Your task to perform on an android device: Search for "jbl charge 4" on walmart.com, select the first entry, and add it to the cart. Image 0: 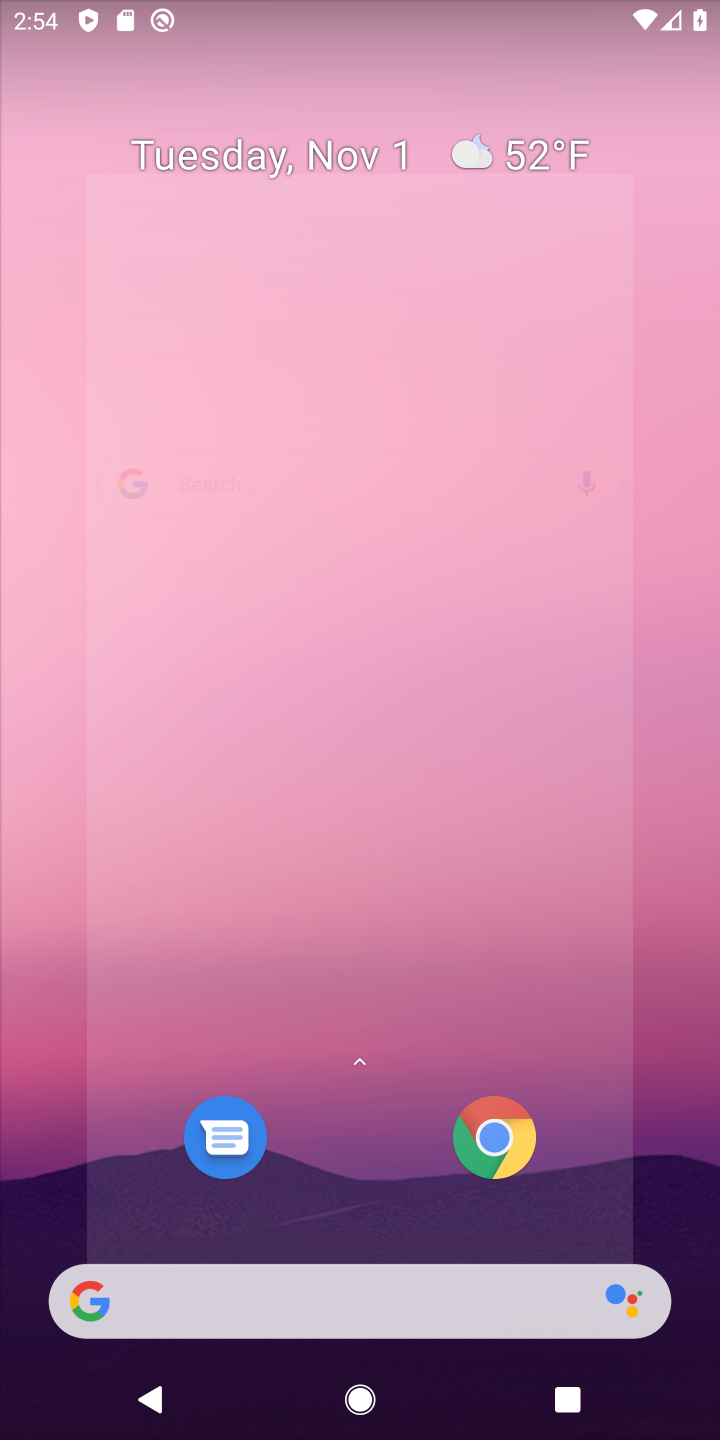
Step 0: click (333, 205)
Your task to perform on an android device: Search for "jbl charge 4" on walmart.com, select the first entry, and add it to the cart. Image 1: 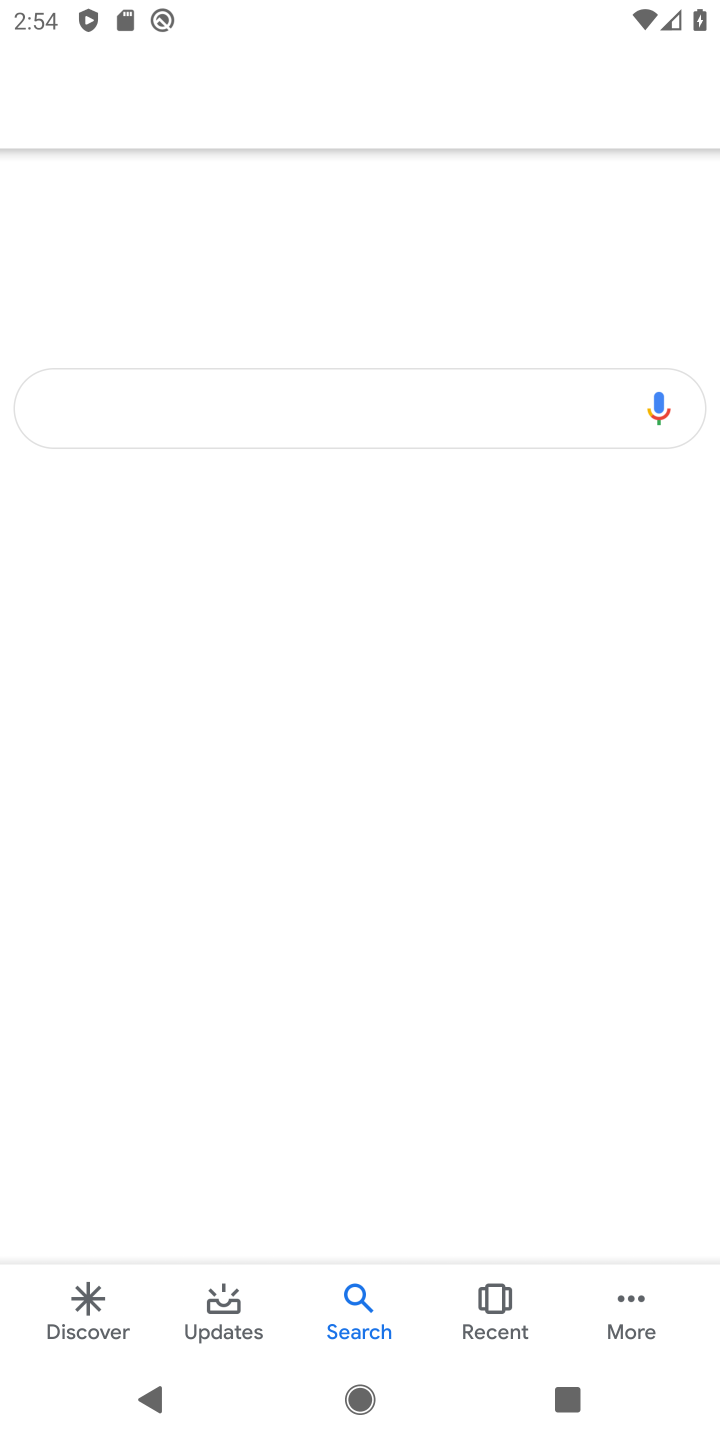
Step 1: press home button
Your task to perform on an android device: Search for "jbl charge 4" on walmart.com, select the first entry, and add it to the cart. Image 2: 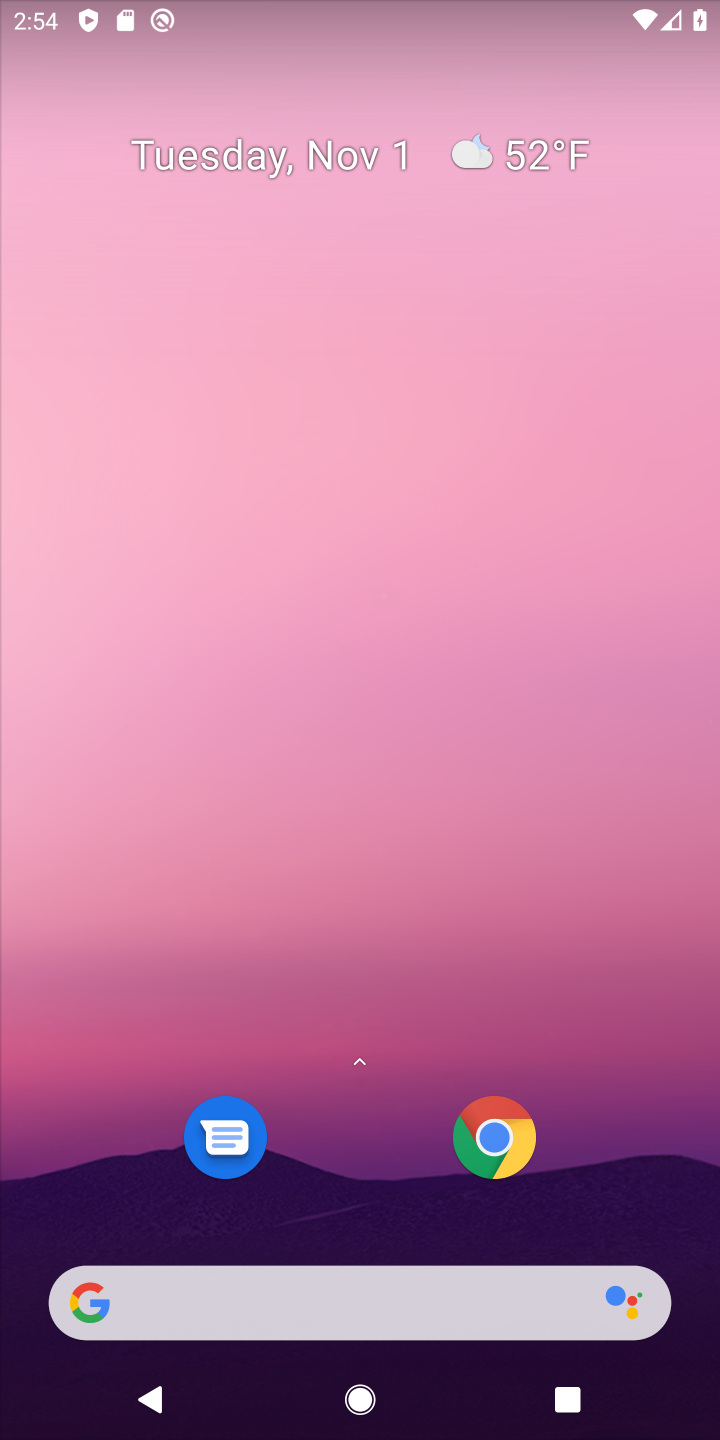
Step 2: click (419, 1305)
Your task to perform on an android device: Search for "jbl charge 4" on walmart.com, select the first entry, and add it to the cart. Image 3: 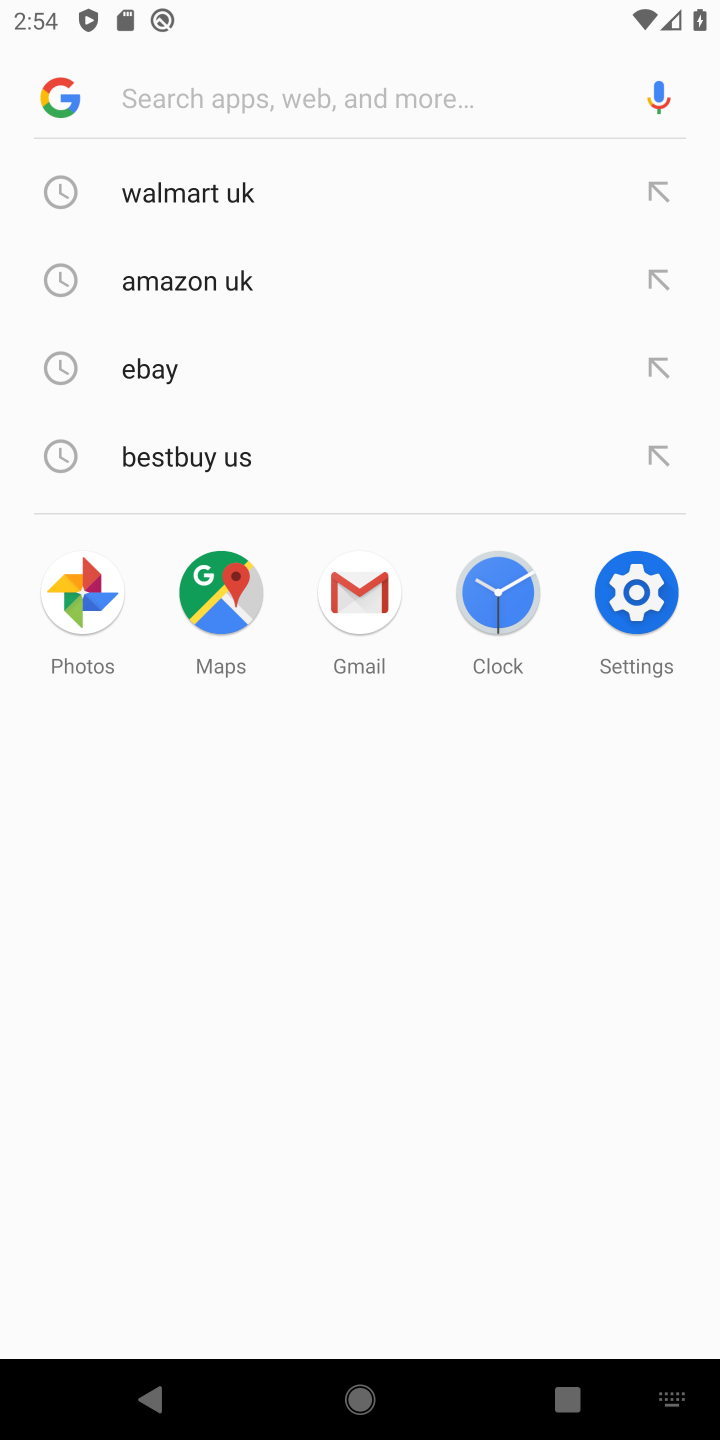
Step 3: click (181, 219)
Your task to perform on an android device: Search for "jbl charge 4" on walmart.com, select the first entry, and add it to the cart. Image 4: 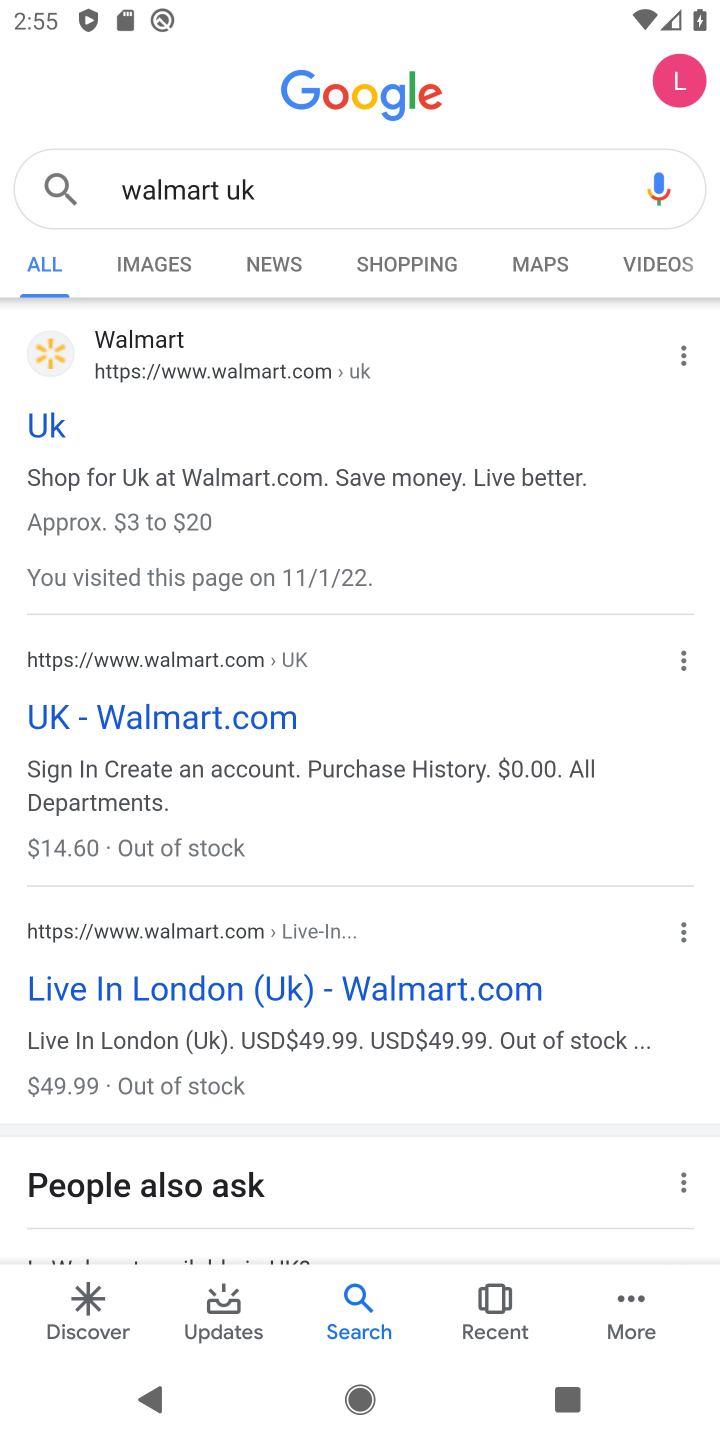
Step 4: click (41, 454)
Your task to perform on an android device: Search for "jbl charge 4" on walmart.com, select the first entry, and add it to the cart. Image 5: 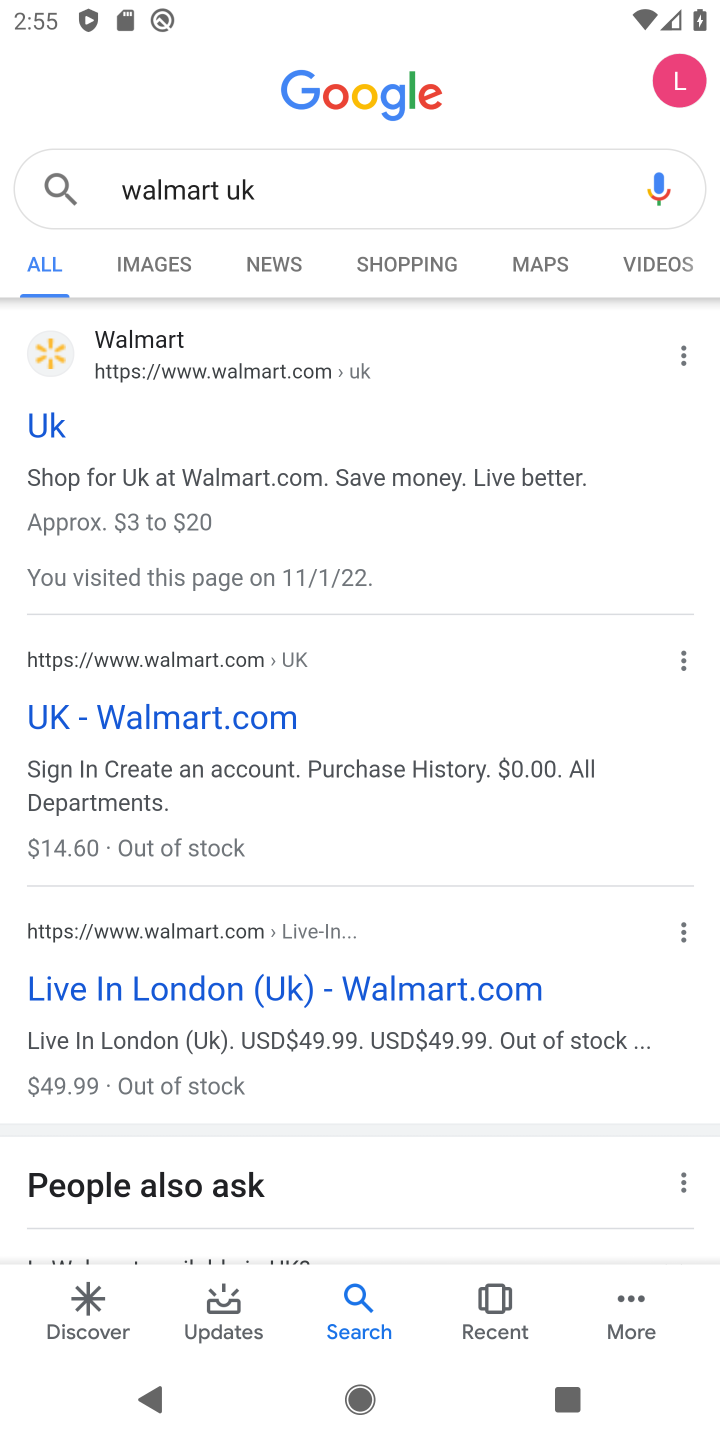
Step 5: click (153, 362)
Your task to perform on an android device: Search for "jbl charge 4" on walmart.com, select the first entry, and add it to the cart. Image 6: 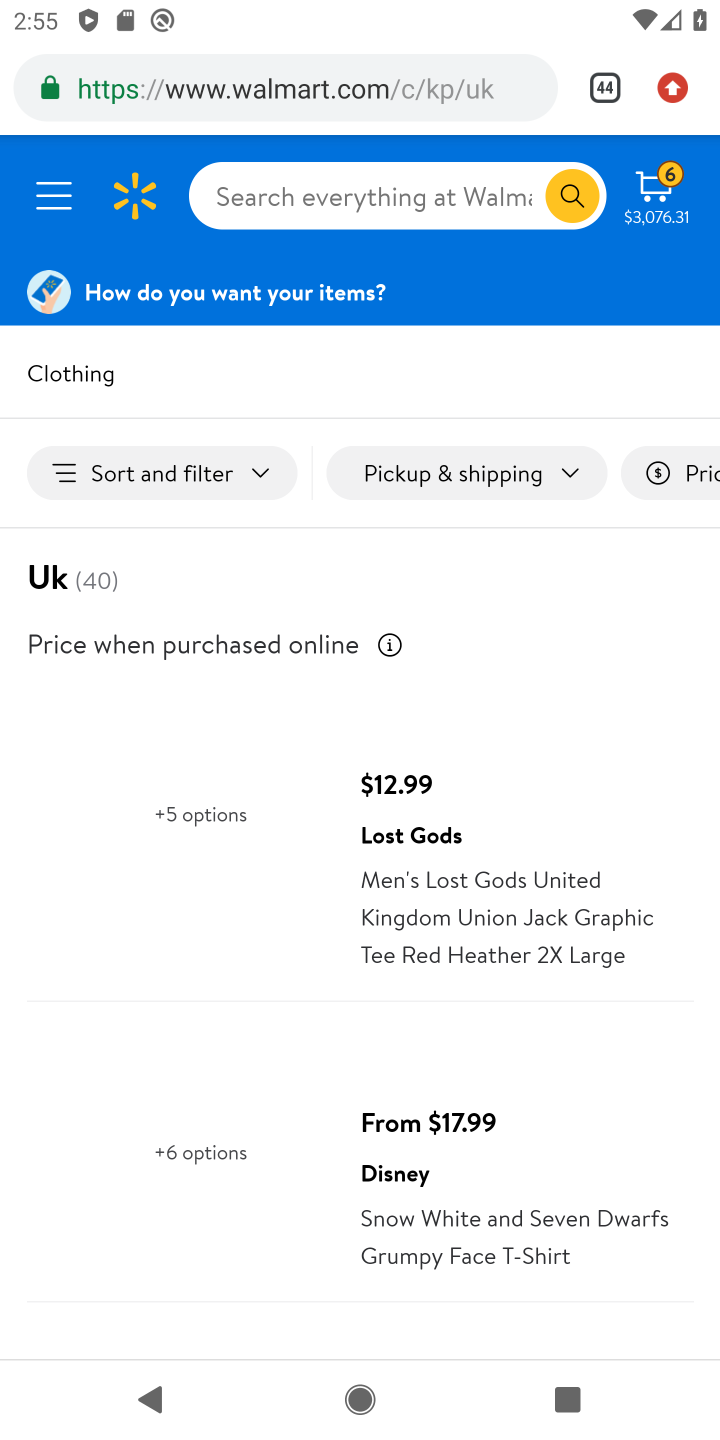
Step 6: click (355, 223)
Your task to perform on an android device: Search for "jbl charge 4" on walmart.com, select the first entry, and add it to the cart. Image 7: 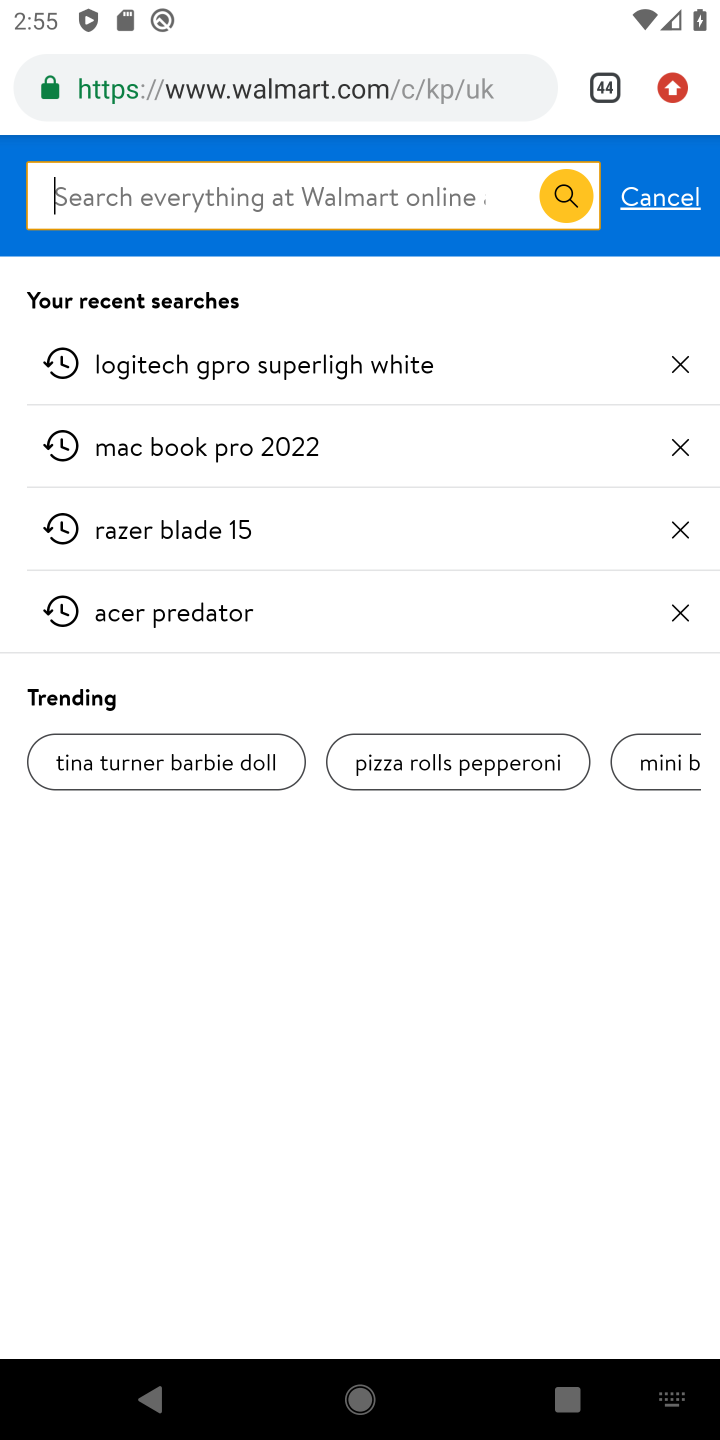
Step 7: type "jbl ccharge 4"
Your task to perform on an android device: Search for "jbl charge 4" on walmart.com, select the first entry, and add it to the cart. Image 8: 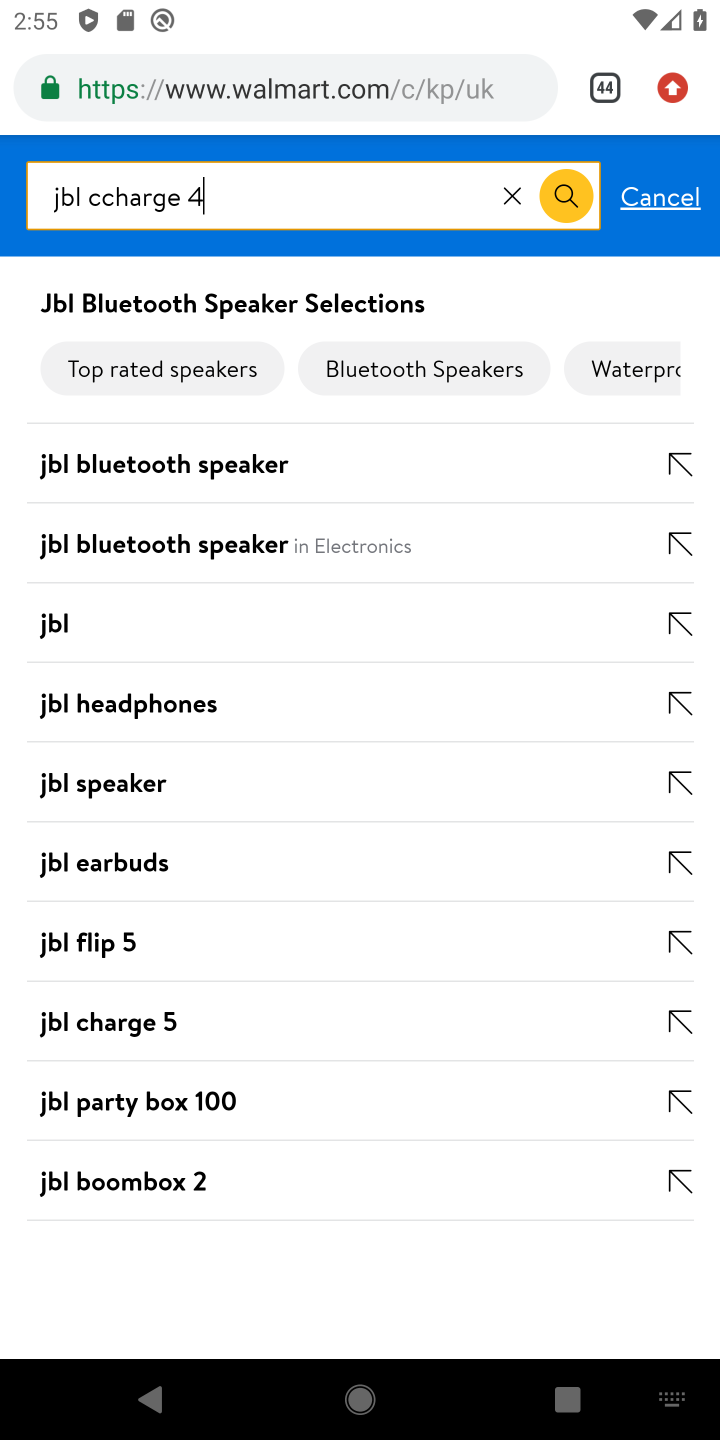
Step 8: click (253, 316)
Your task to perform on an android device: Search for "jbl charge 4" on walmart.com, select the first entry, and add it to the cart. Image 9: 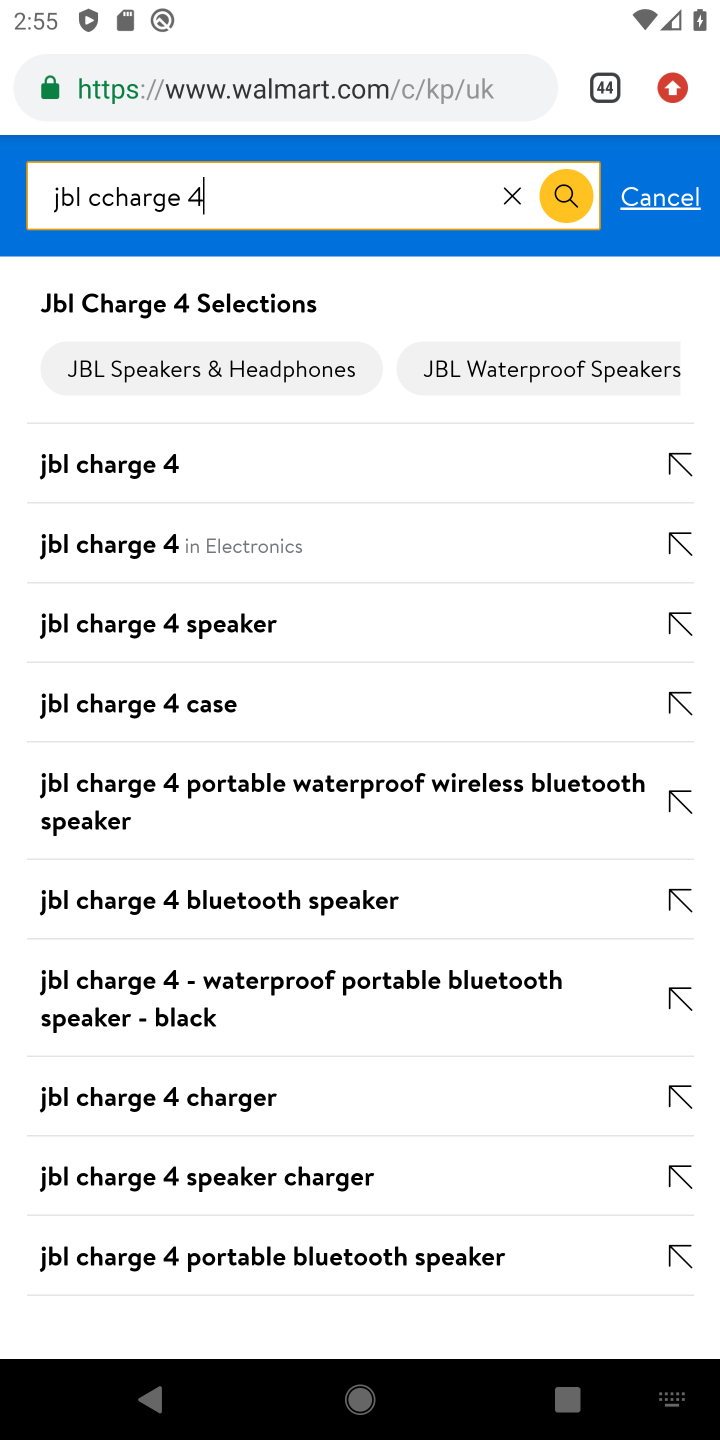
Step 9: click (253, 316)
Your task to perform on an android device: Search for "jbl charge 4" on walmart.com, select the first entry, and add it to the cart. Image 10: 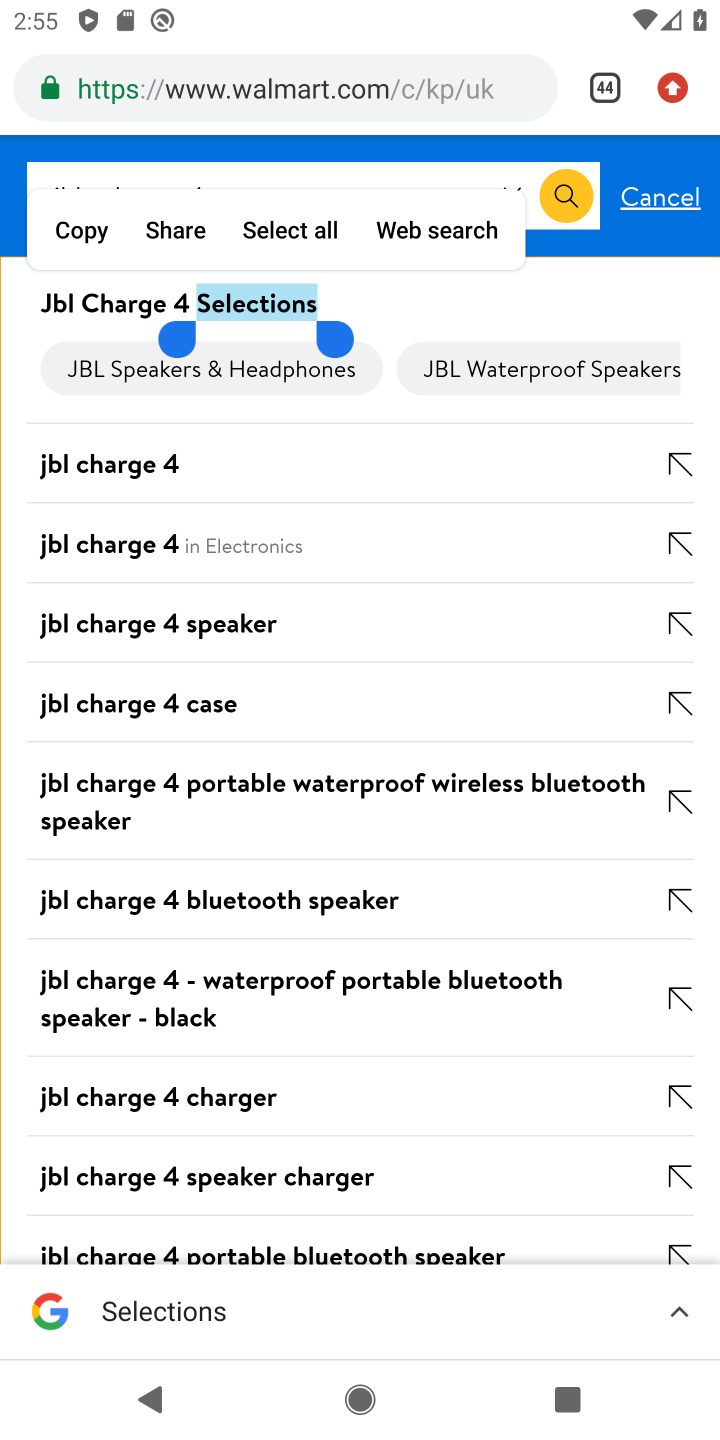
Step 10: click (240, 451)
Your task to perform on an android device: Search for "jbl charge 4" on walmart.com, select the first entry, and add it to the cart. Image 11: 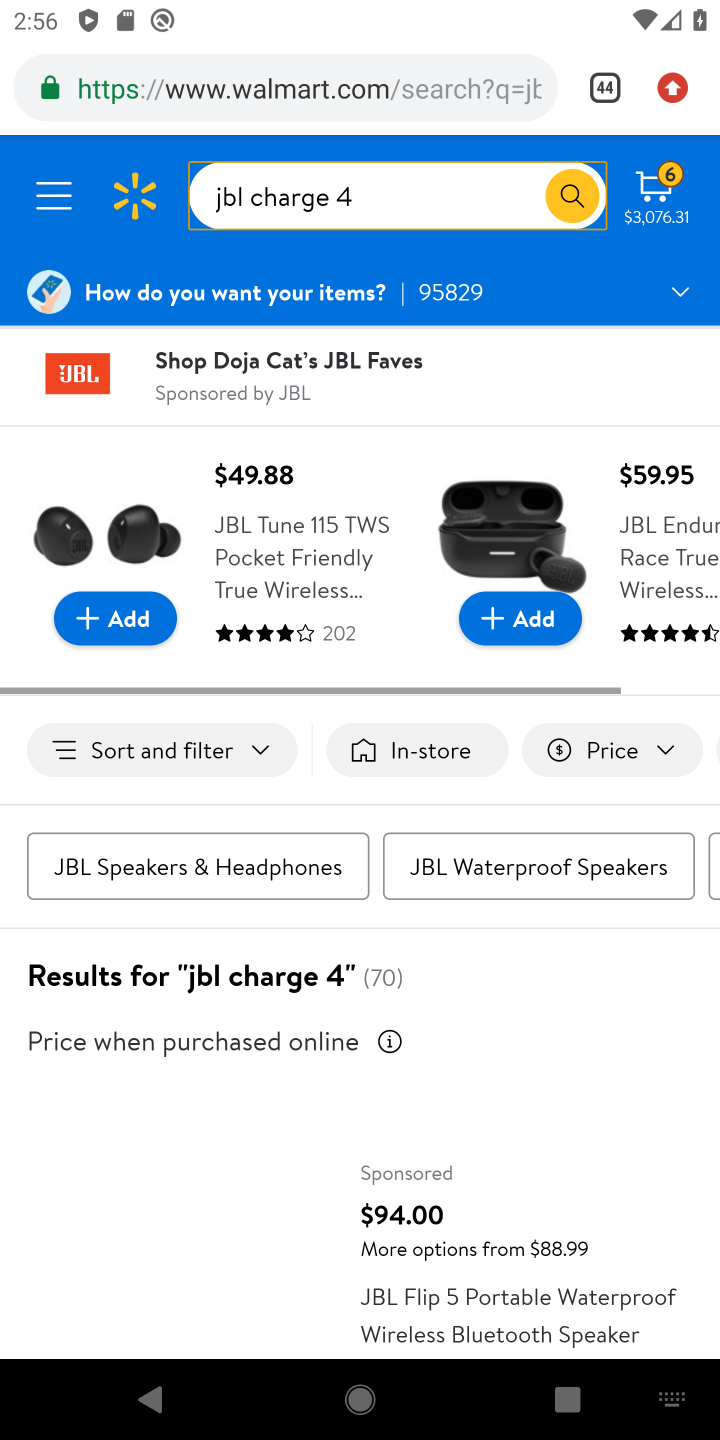
Step 11: click (287, 864)
Your task to perform on an android device: Search for "jbl charge 4" on walmart.com, select the first entry, and add it to the cart. Image 12: 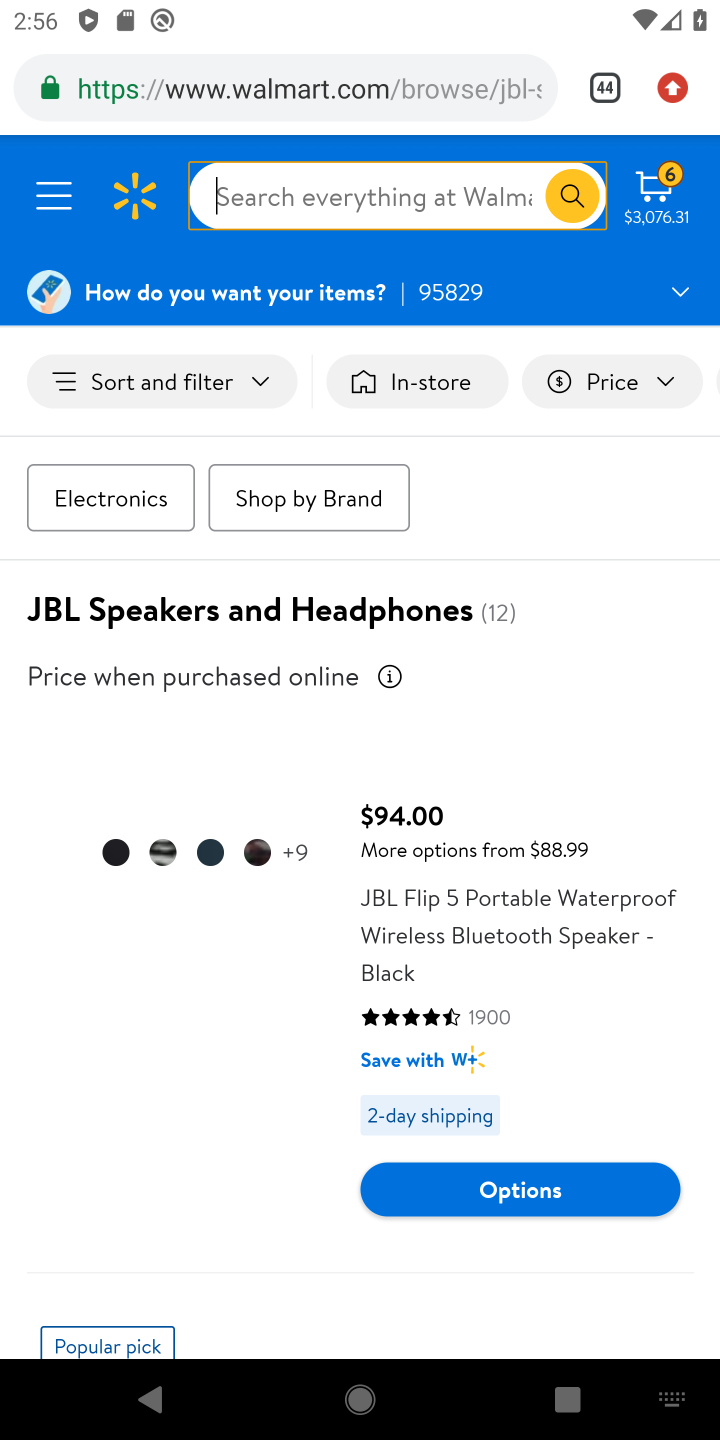
Step 12: task complete